Your task to perform on an android device: Search for hotels in Sydney Image 0: 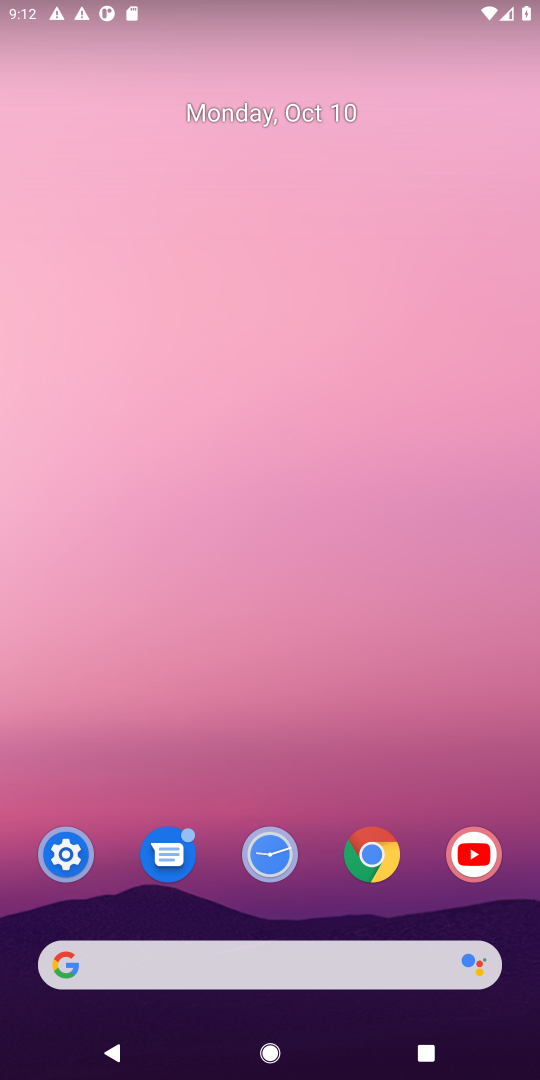
Step 0: click (390, 973)
Your task to perform on an android device: Search for hotels in Sydney Image 1: 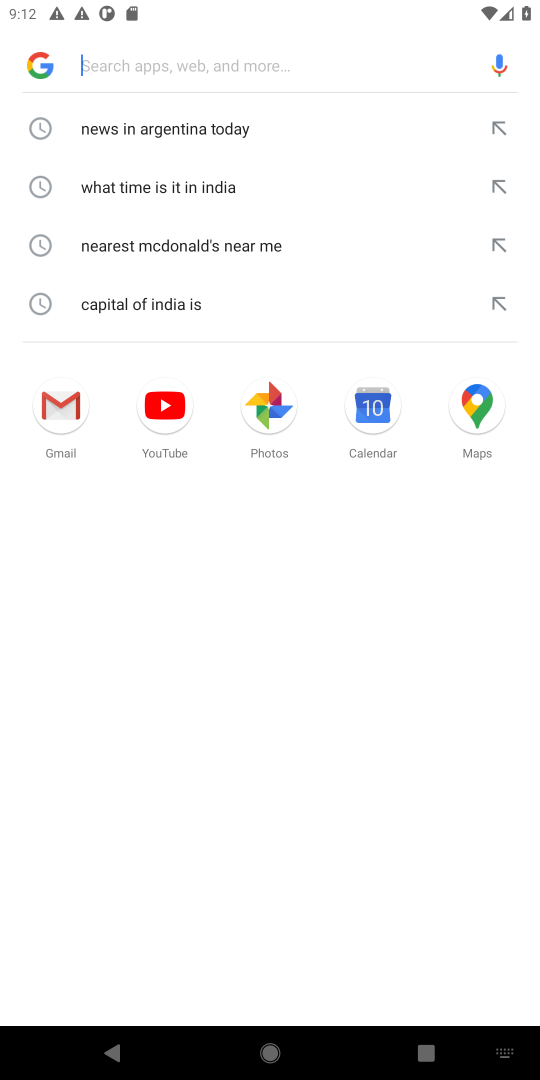
Step 1: type "hotels in Sydney"
Your task to perform on an android device: Search for hotels in Sydney Image 2: 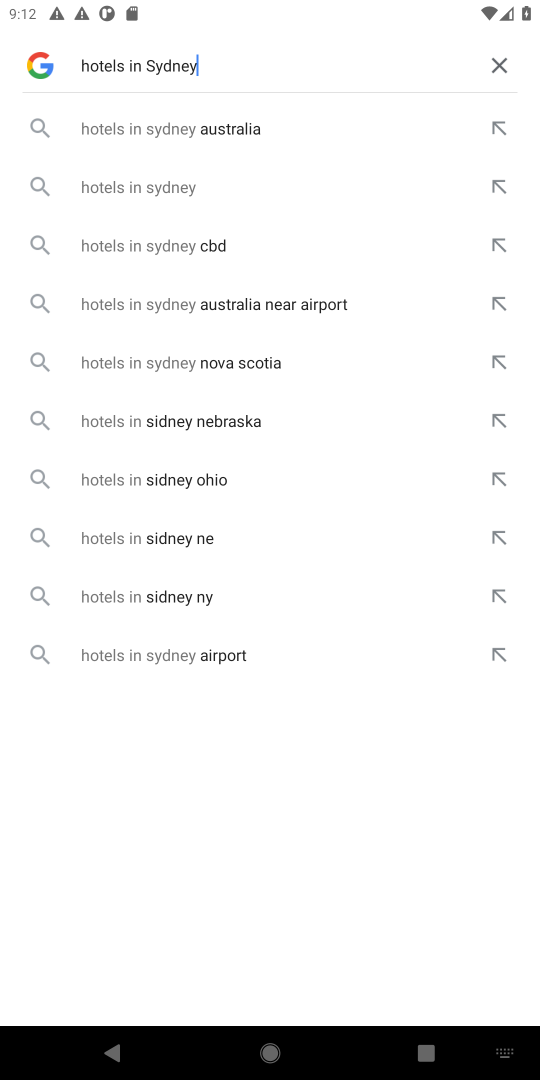
Step 2: click (163, 192)
Your task to perform on an android device: Search for hotels in Sydney Image 3: 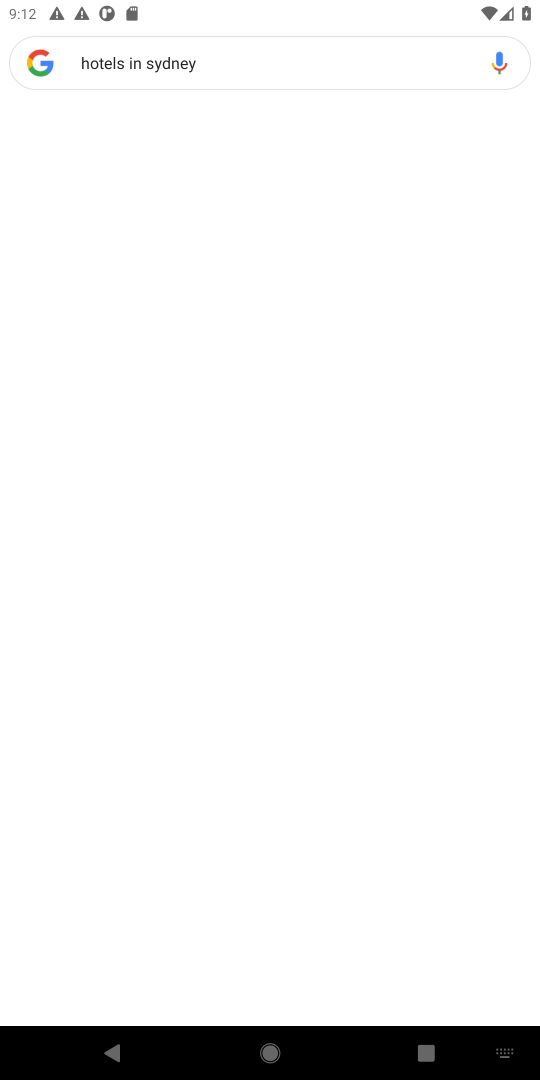
Step 3: click (163, 192)
Your task to perform on an android device: Search for hotels in Sydney Image 4: 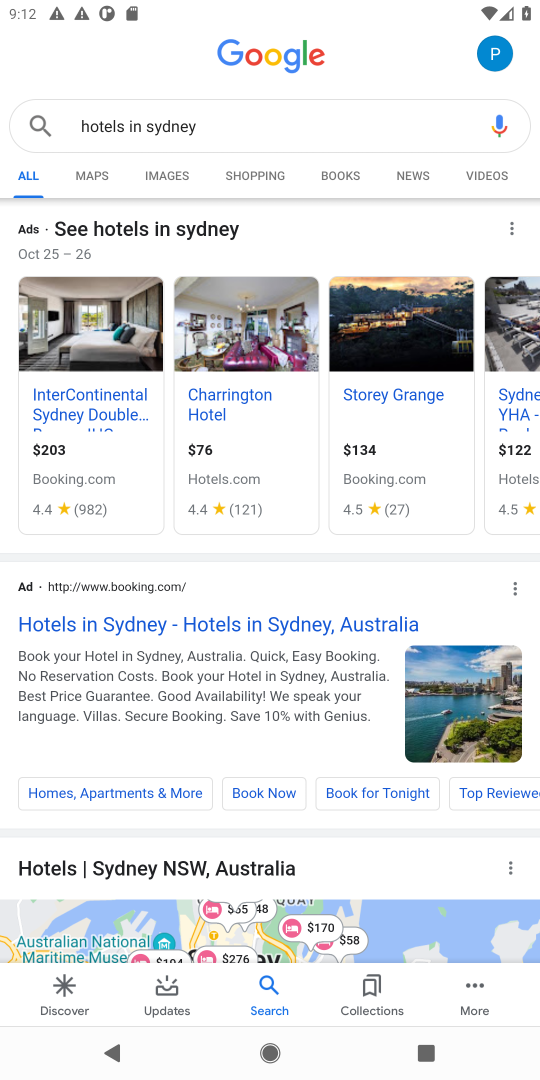
Step 4: drag from (315, 847) to (305, 428)
Your task to perform on an android device: Search for hotels in Sydney Image 5: 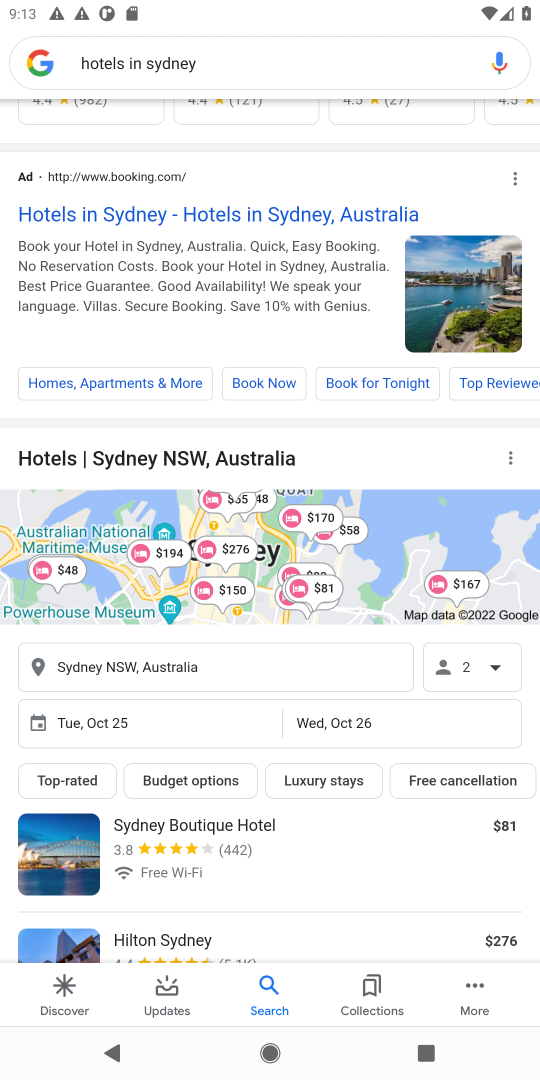
Step 5: drag from (339, 851) to (312, 413)
Your task to perform on an android device: Search for hotels in Sydney Image 6: 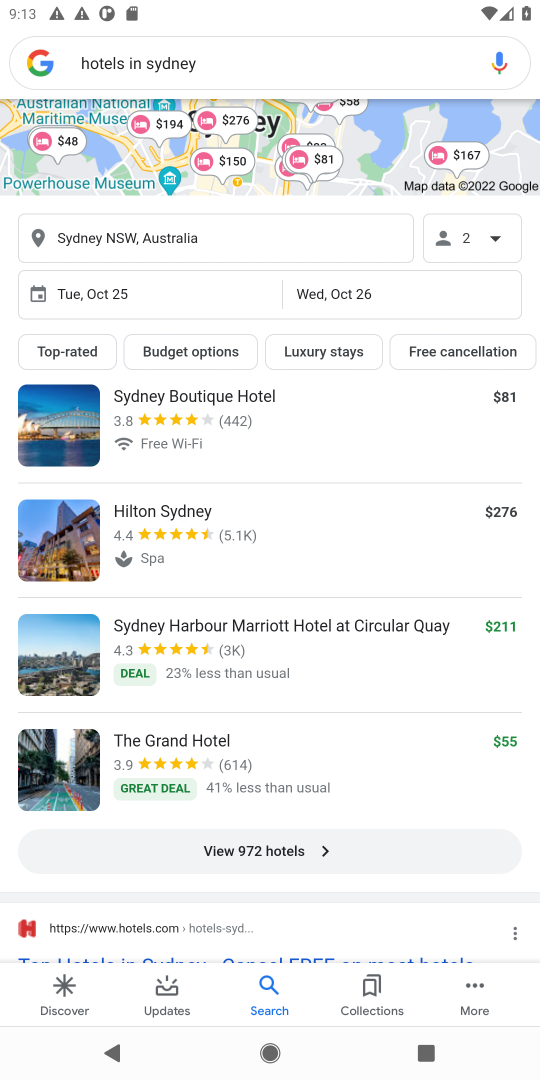
Step 6: click (309, 846)
Your task to perform on an android device: Search for hotels in Sydney Image 7: 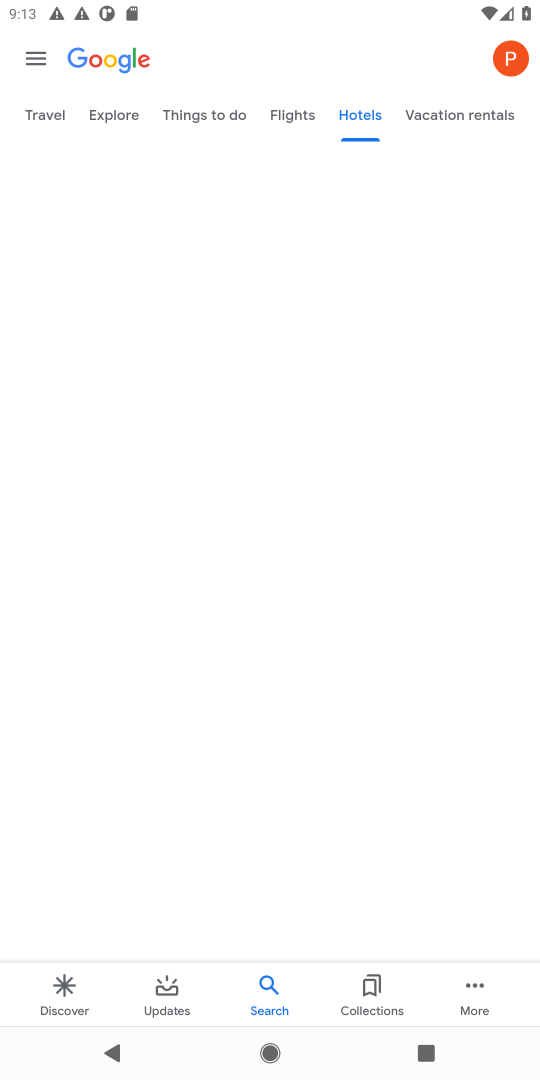
Step 7: task complete